Your task to perform on an android device: Open my contact list Image 0: 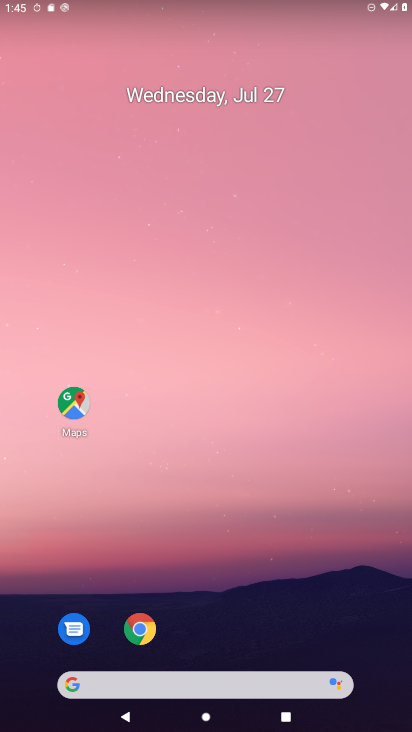
Step 0: press home button
Your task to perform on an android device: Open my contact list Image 1: 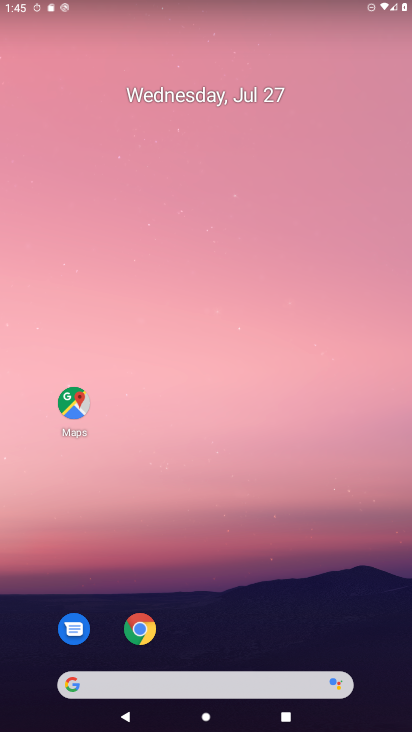
Step 1: drag from (217, 618) to (271, 84)
Your task to perform on an android device: Open my contact list Image 2: 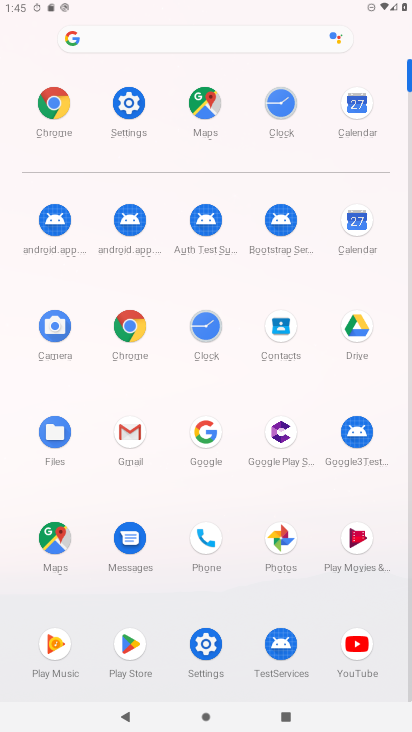
Step 2: click (279, 327)
Your task to perform on an android device: Open my contact list Image 3: 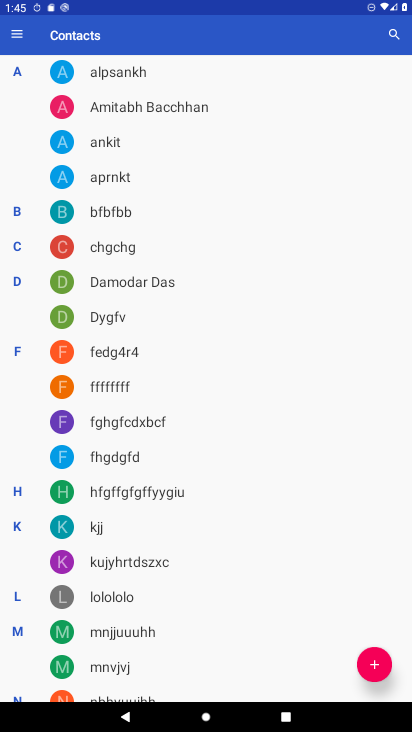
Step 3: task complete